Your task to perform on an android device: refresh tabs in the chrome app Image 0: 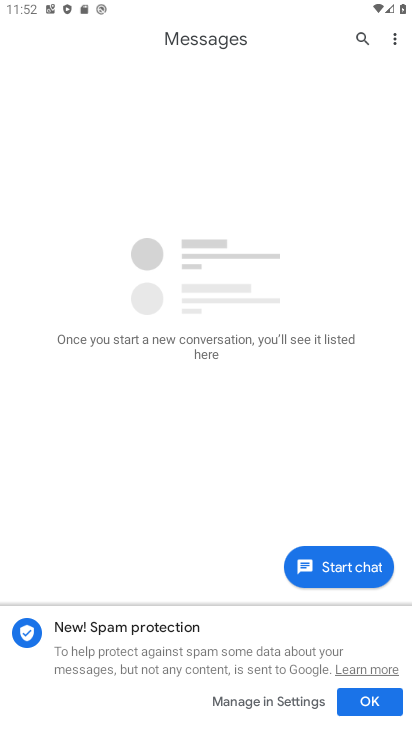
Step 0: press home button
Your task to perform on an android device: refresh tabs in the chrome app Image 1: 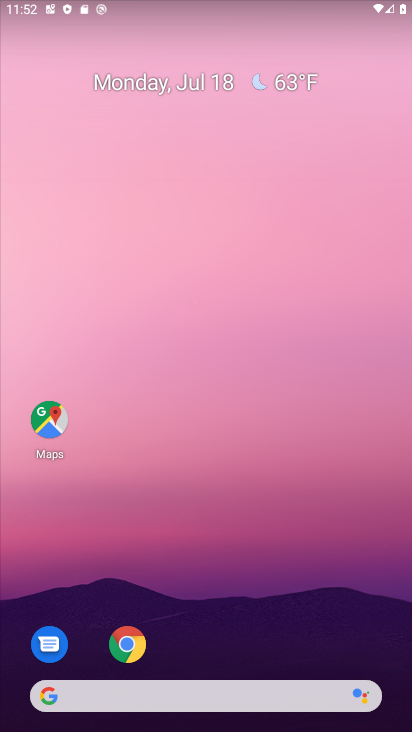
Step 1: click (127, 649)
Your task to perform on an android device: refresh tabs in the chrome app Image 2: 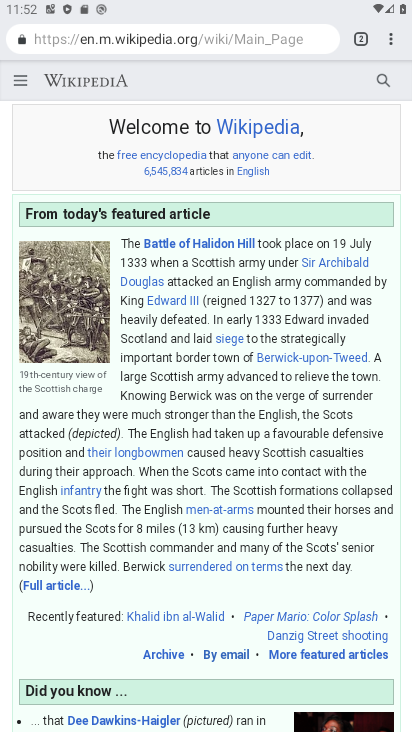
Step 2: click (390, 41)
Your task to perform on an android device: refresh tabs in the chrome app Image 3: 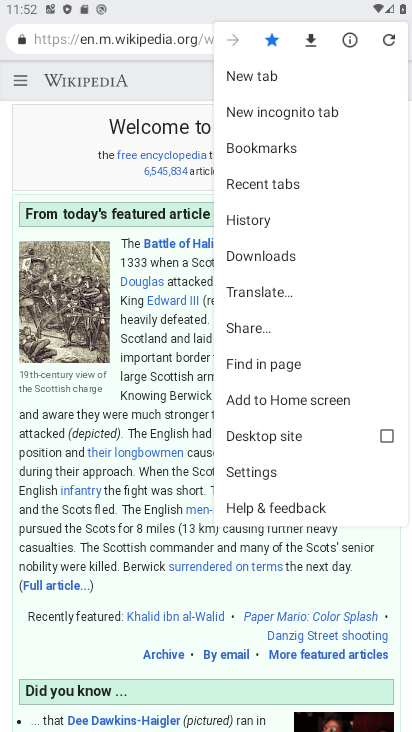
Step 3: click (385, 37)
Your task to perform on an android device: refresh tabs in the chrome app Image 4: 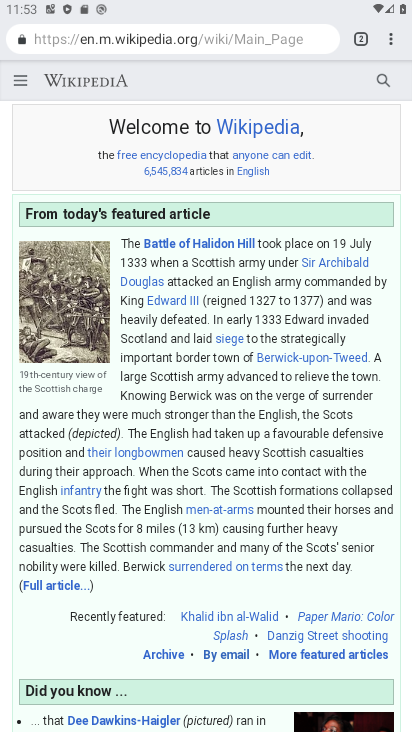
Step 4: task complete